Your task to perform on an android device: Show me productivity apps on the Play Store Image 0: 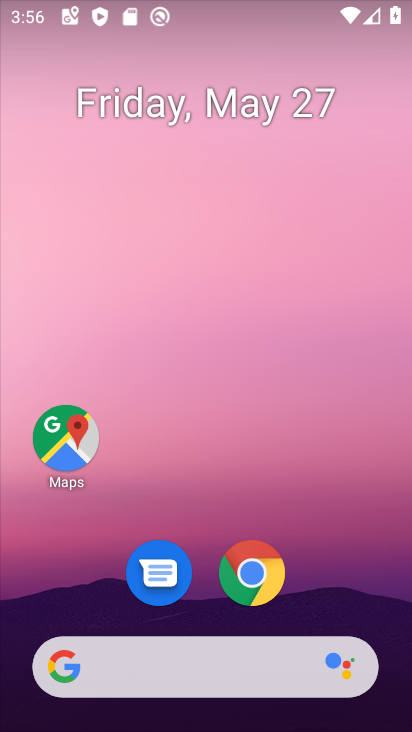
Step 0: drag from (271, 465) to (227, 24)
Your task to perform on an android device: Show me productivity apps on the Play Store Image 1: 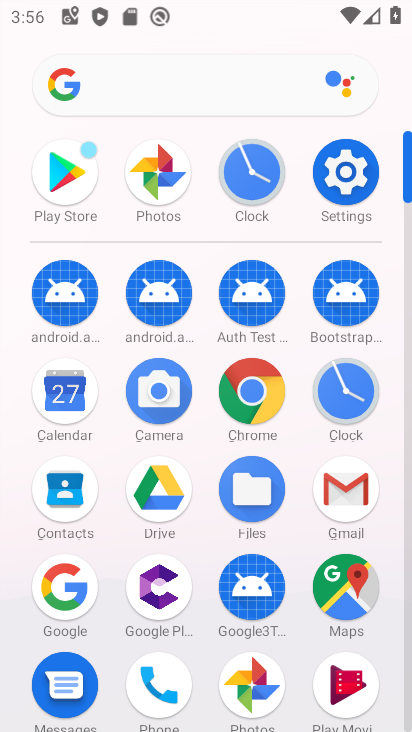
Step 1: drag from (120, 563) to (141, 267)
Your task to perform on an android device: Show me productivity apps on the Play Store Image 2: 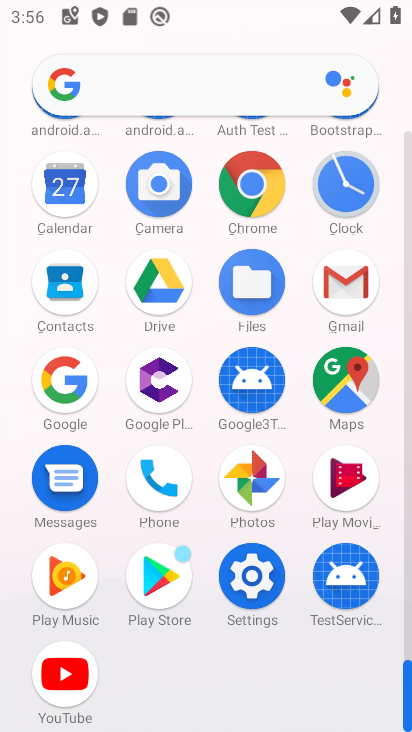
Step 2: click (173, 575)
Your task to perform on an android device: Show me productivity apps on the Play Store Image 3: 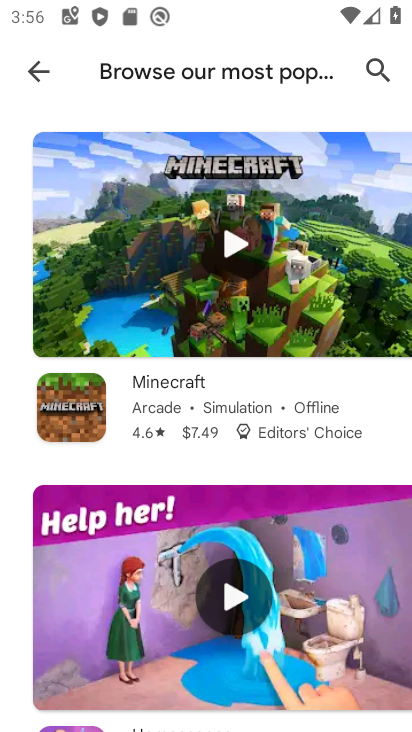
Step 3: click (32, 61)
Your task to perform on an android device: Show me productivity apps on the Play Store Image 4: 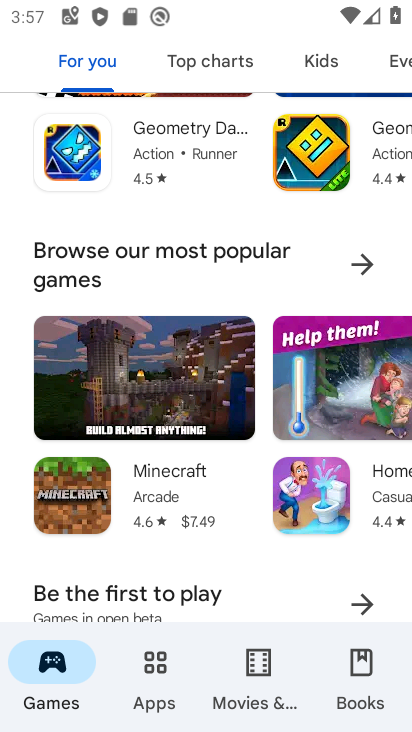
Step 4: click (162, 676)
Your task to perform on an android device: Show me productivity apps on the Play Store Image 5: 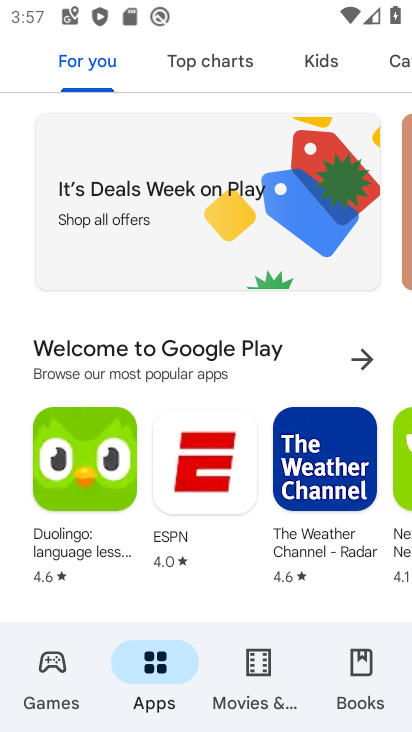
Step 5: click (403, 60)
Your task to perform on an android device: Show me productivity apps on the Play Store Image 6: 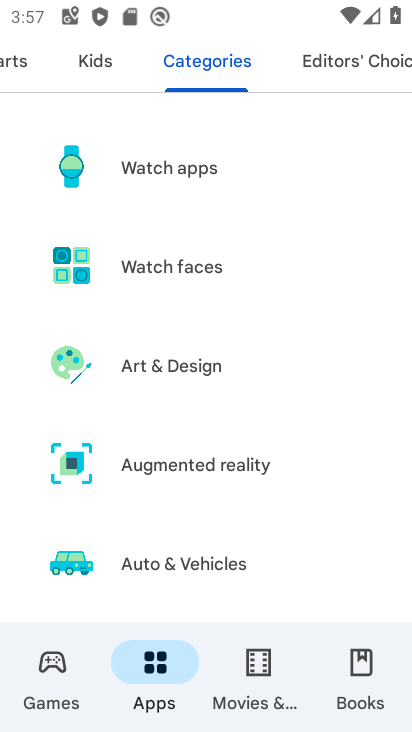
Step 6: drag from (265, 495) to (277, 16)
Your task to perform on an android device: Show me productivity apps on the Play Store Image 7: 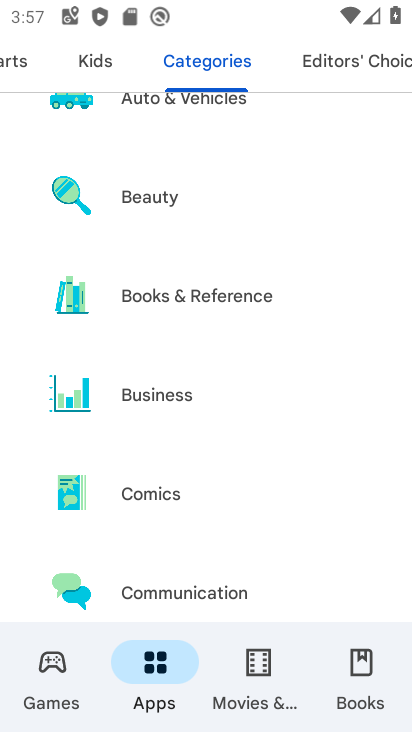
Step 7: drag from (236, 535) to (259, 5)
Your task to perform on an android device: Show me productivity apps on the Play Store Image 8: 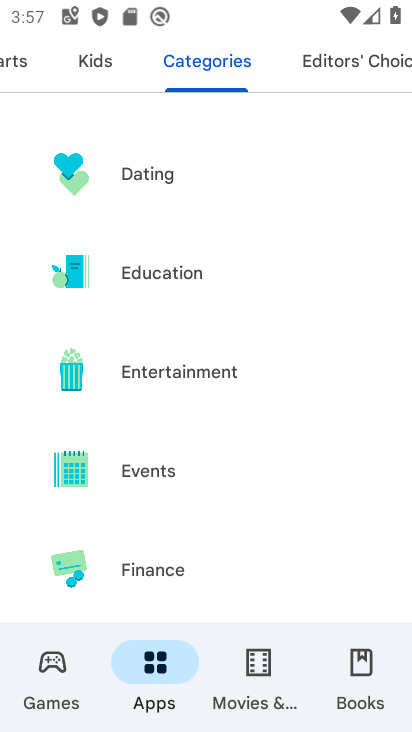
Step 8: drag from (214, 565) to (221, 3)
Your task to perform on an android device: Show me productivity apps on the Play Store Image 9: 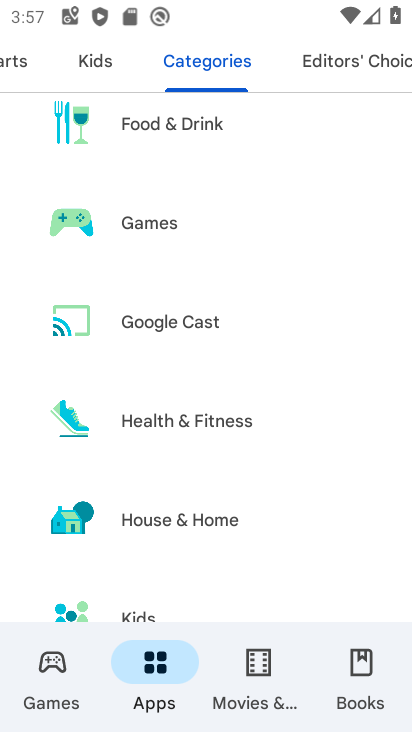
Step 9: drag from (232, 536) to (230, 80)
Your task to perform on an android device: Show me productivity apps on the Play Store Image 10: 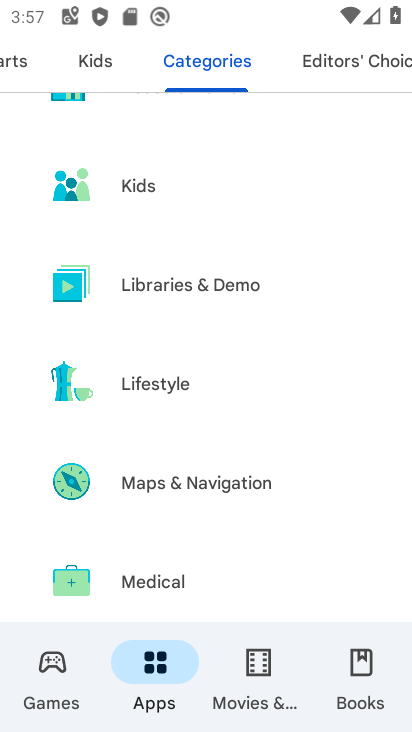
Step 10: drag from (236, 562) to (240, 92)
Your task to perform on an android device: Show me productivity apps on the Play Store Image 11: 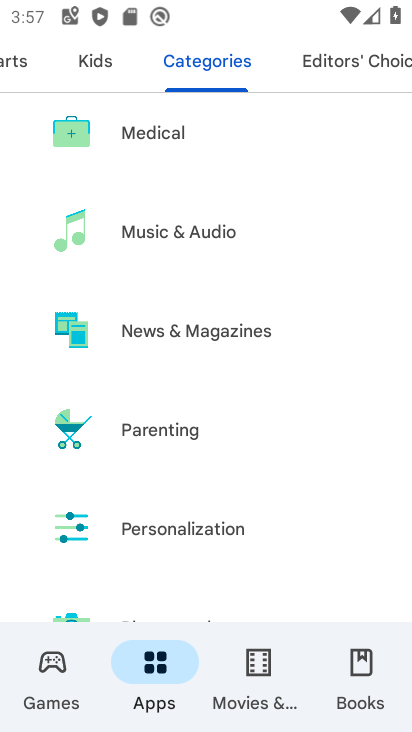
Step 11: drag from (283, 560) to (285, 155)
Your task to perform on an android device: Show me productivity apps on the Play Store Image 12: 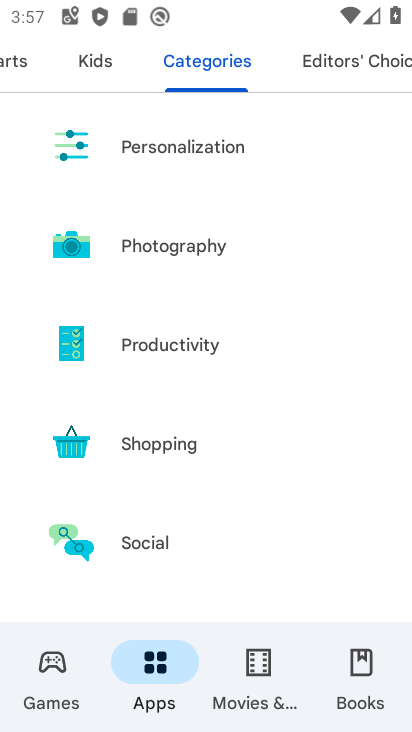
Step 12: click (218, 334)
Your task to perform on an android device: Show me productivity apps on the Play Store Image 13: 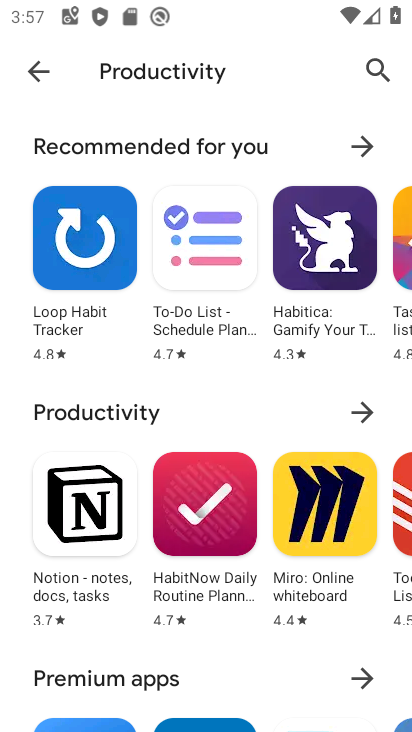
Step 13: click (351, 411)
Your task to perform on an android device: Show me productivity apps on the Play Store Image 14: 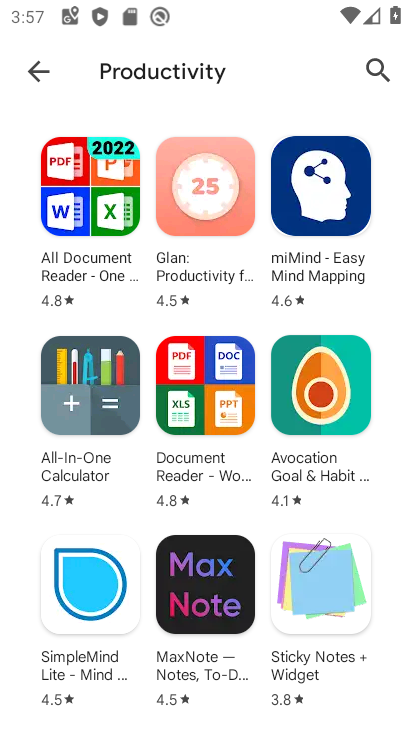
Step 14: task complete